Your task to perform on an android device: turn off notifications in google photos Image 0: 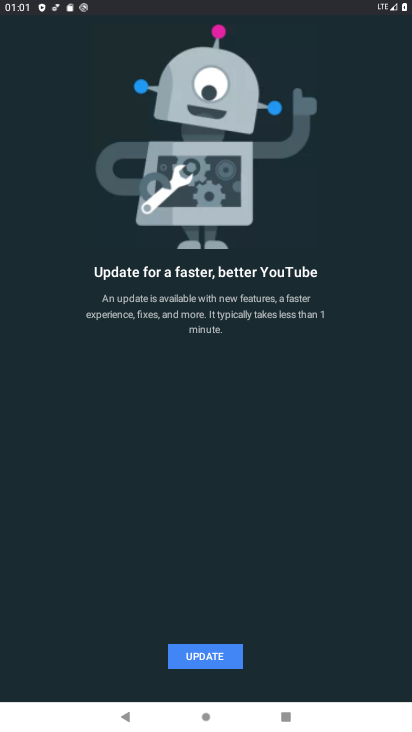
Step 0: press home button
Your task to perform on an android device: turn off notifications in google photos Image 1: 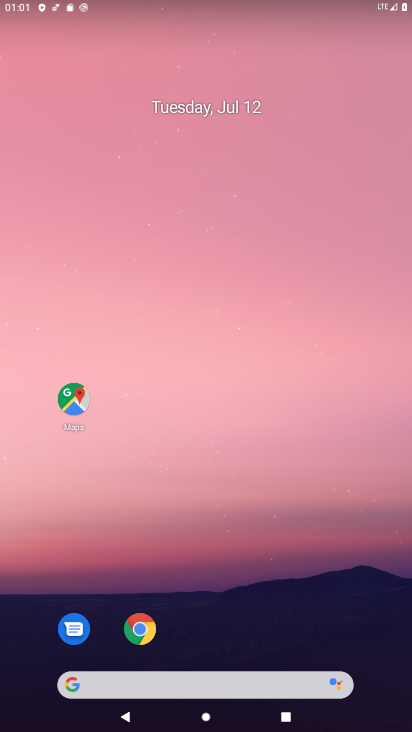
Step 1: drag from (19, 709) to (239, 157)
Your task to perform on an android device: turn off notifications in google photos Image 2: 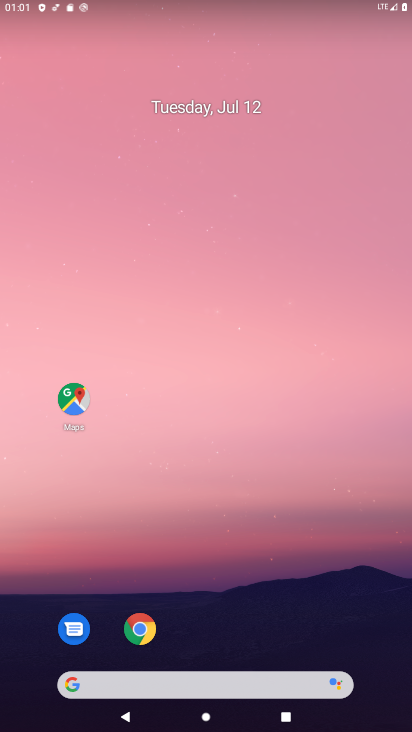
Step 2: drag from (42, 705) to (335, 27)
Your task to perform on an android device: turn off notifications in google photos Image 3: 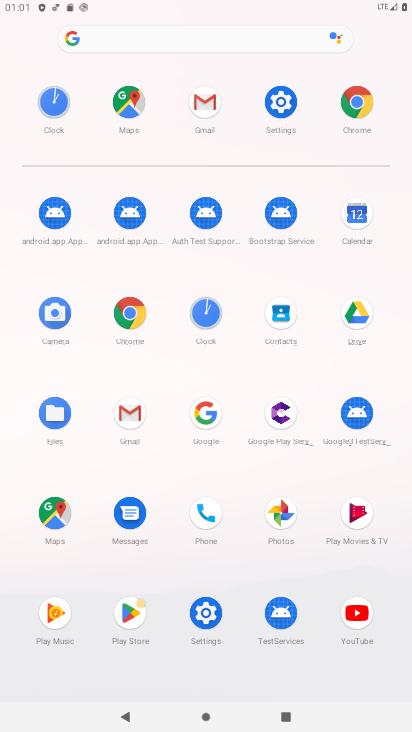
Step 3: click (276, 532)
Your task to perform on an android device: turn off notifications in google photos Image 4: 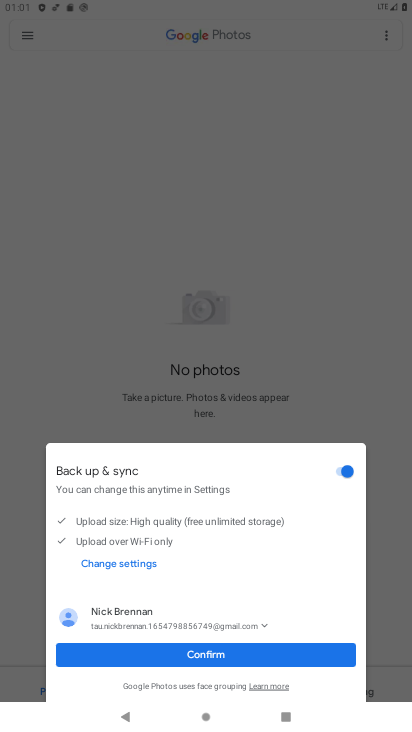
Step 4: click (197, 660)
Your task to perform on an android device: turn off notifications in google photos Image 5: 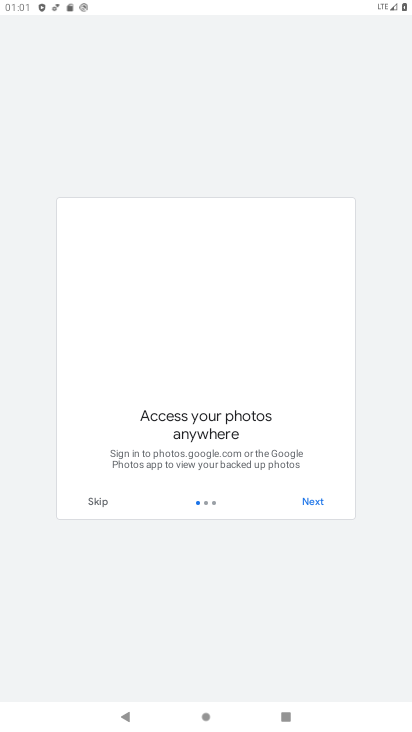
Step 5: click (314, 499)
Your task to perform on an android device: turn off notifications in google photos Image 6: 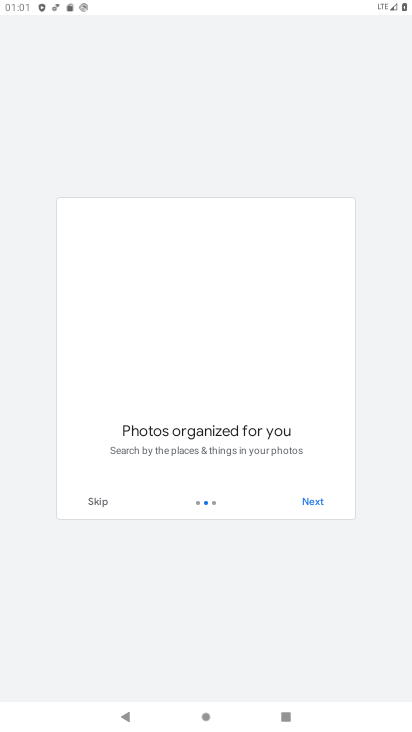
Step 6: click (314, 500)
Your task to perform on an android device: turn off notifications in google photos Image 7: 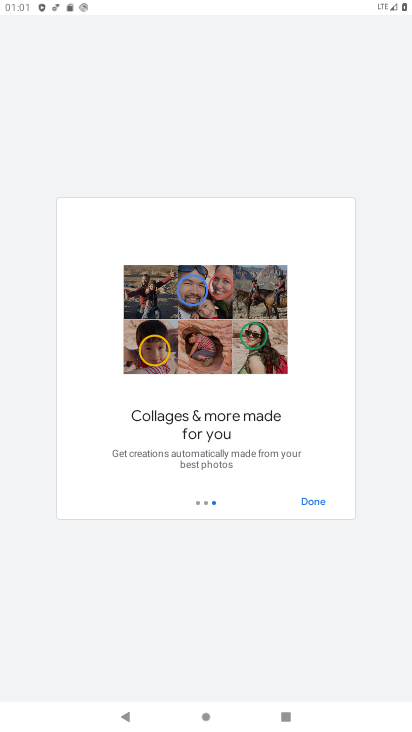
Step 7: click (315, 499)
Your task to perform on an android device: turn off notifications in google photos Image 8: 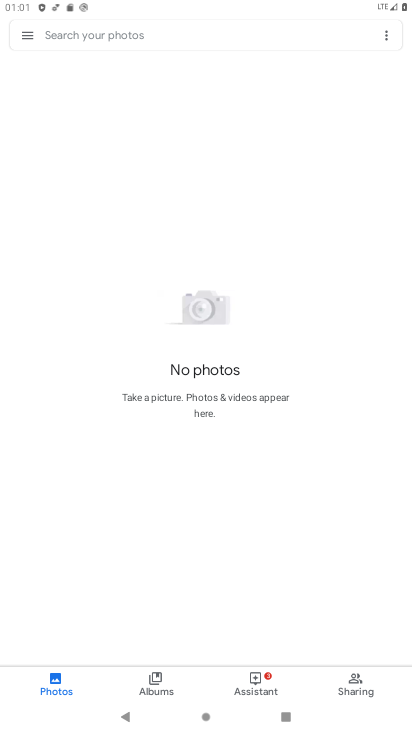
Step 8: click (20, 38)
Your task to perform on an android device: turn off notifications in google photos Image 9: 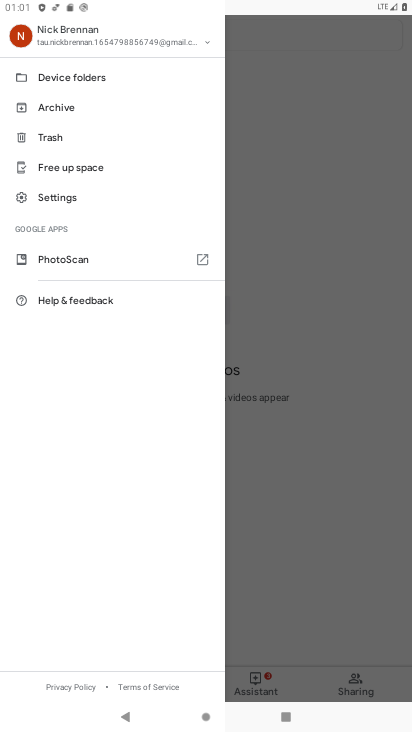
Step 9: click (81, 199)
Your task to perform on an android device: turn off notifications in google photos Image 10: 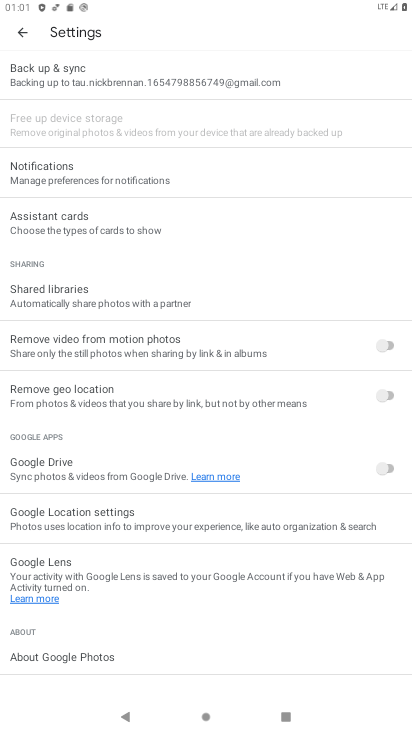
Step 10: click (80, 170)
Your task to perform on an android device: turn off notifications in google photos Image 11: 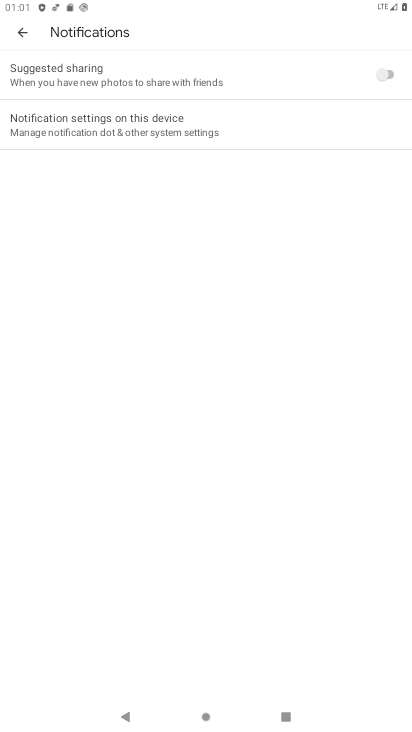
Step 11: click (156, 119)
Your task to perform on an android device: turn off notifications in google photos Image 12: 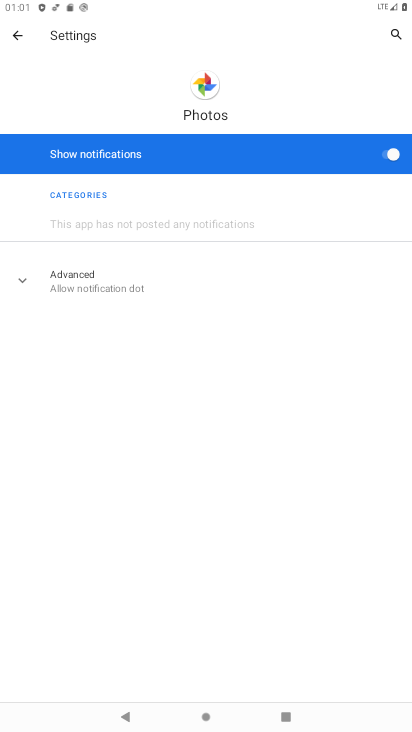
Step 12: click (384, 157)
Your task to perform on an android device: turn off notifications in google photos Image 13: 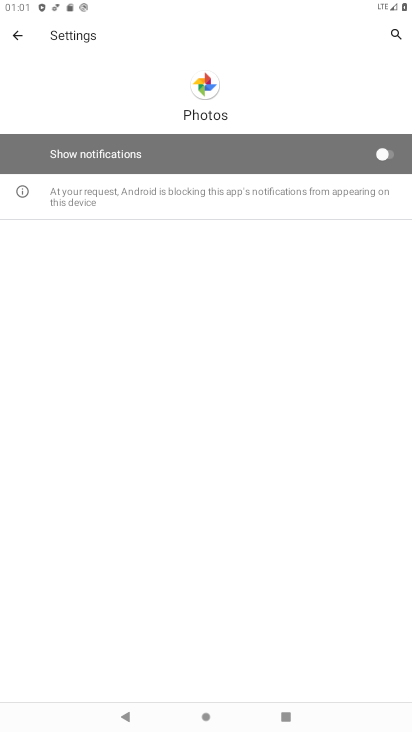
Step 13: task complete